Your task to perform on an android device: Open calendar and show me the second week of next month Image 0: 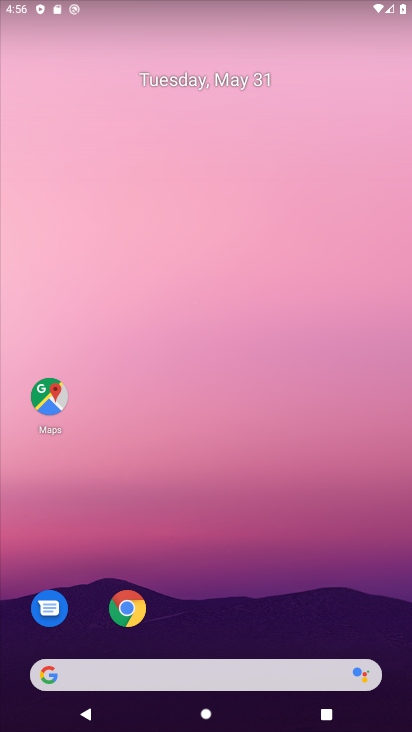
Step 0: drag from (272, 587) to (232, 24)
Your task to perform on an android device: Open calendar and show me the second week of next month Image 1: 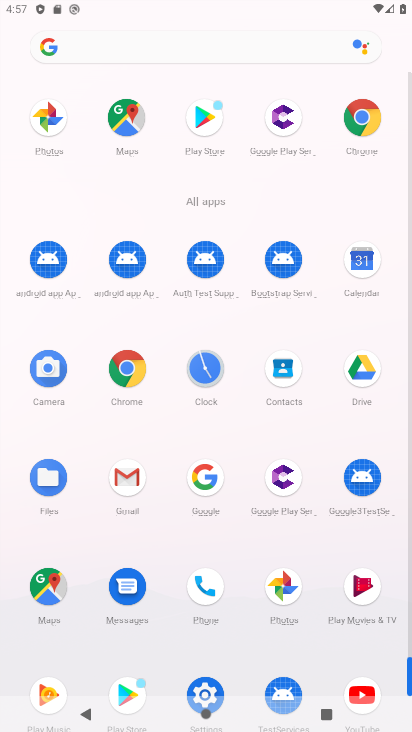
Step 1: click (365, 261)
Your task to perform on an android device: Open calendar and show me the second week of next month Image 2: 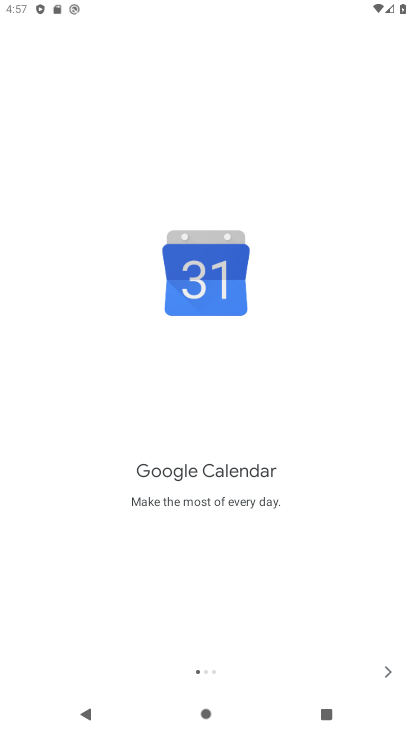
Step 2: click (385, 669)
Your task to perform on an android device: Open calendar and show me the second week of next month Image 3: 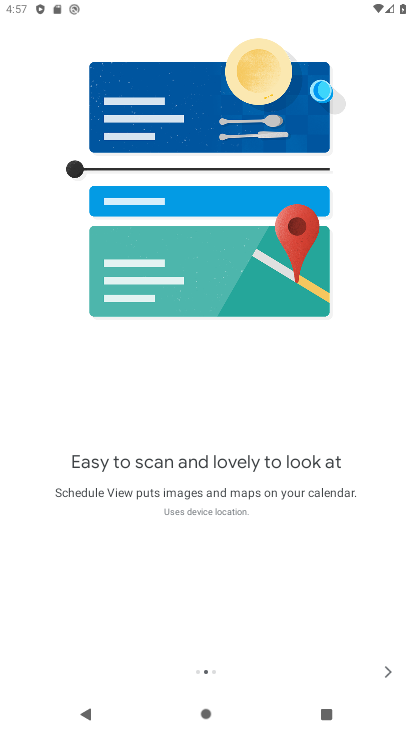
Step 3: click (385, 669)
Your task to perform on an android device: Open calendar and show me the second week of next month Image 4: 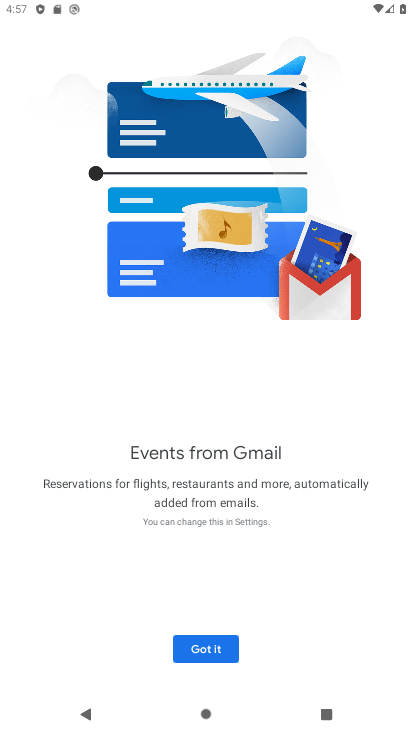
Step 4: click (204, 649)
Your task to perform on an android device: Open calendar and show me the second week of next month Image 5: 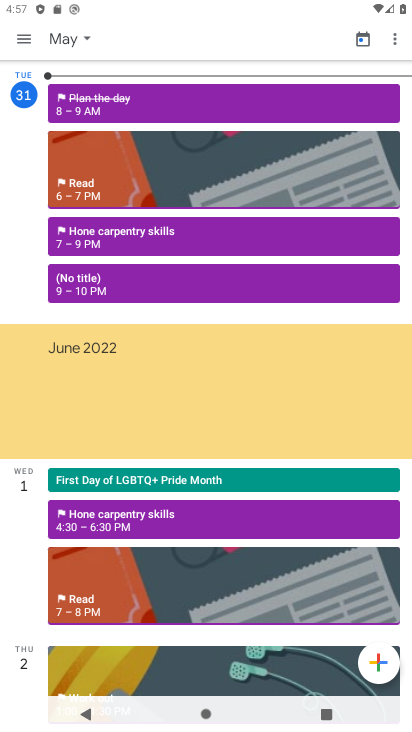
Step 5: click (87, 36)
Your task to perform on an android device: Open calendar and show me the second week of next month Image 6: 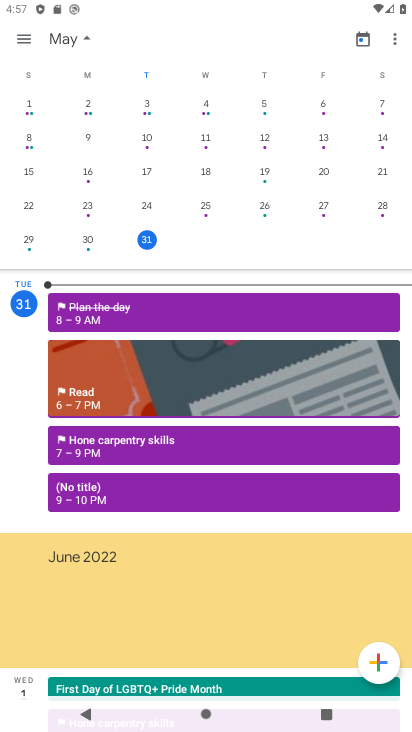
Step 6: drag from (357, 149) to (0, 180)
Your task to perform on an android device: Open calendar and show me the second week of next month Image 7: 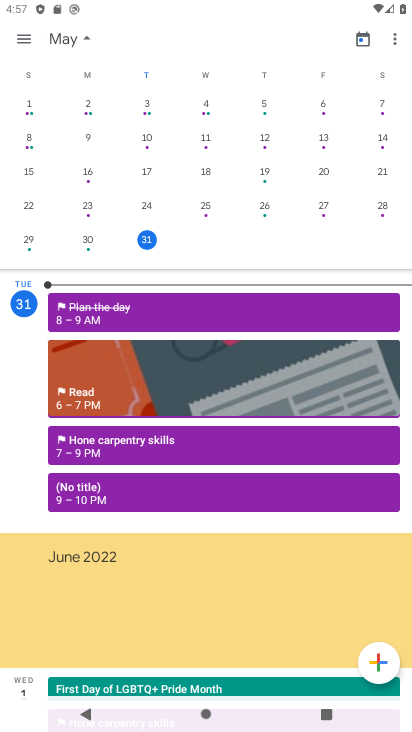
Step 7: drag from (348, 157) to (5, 175)
Your task to perform on an android device: Open calendar and show me the second week of next month Image 8: 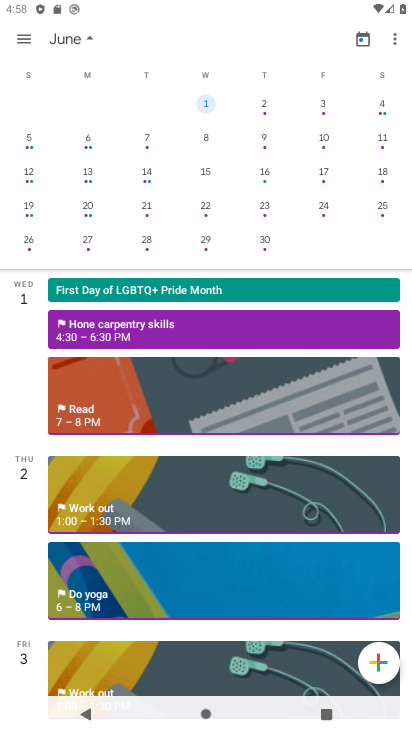
Step 8: click (87, 174)
Your task to perform on an android device: Open calendar and show me the second week of next month Image 9: 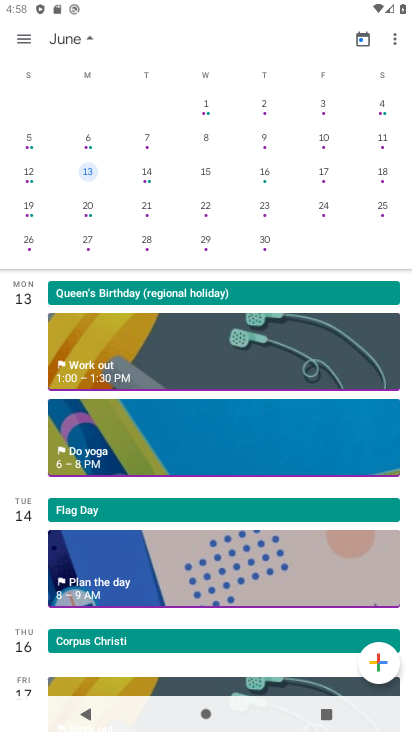
Step 9: click (20, 37)
Your task to perform on an android device: Open calendar and show me the second week of next month Image 10: 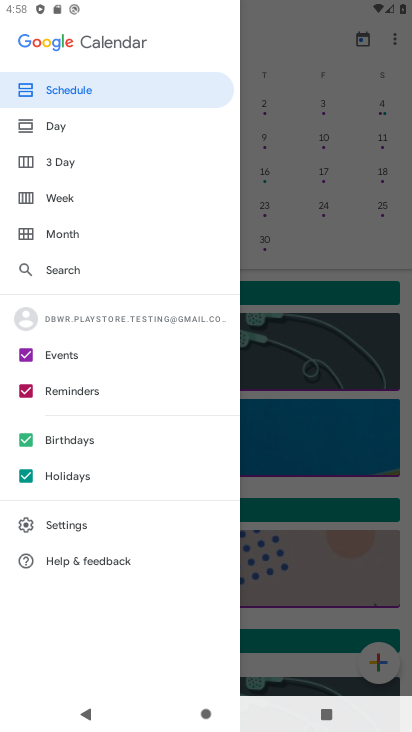
Step 10: click (62, 191)
Your task to perform on an android device: Open calendar and show me the second week of next month Image 11: 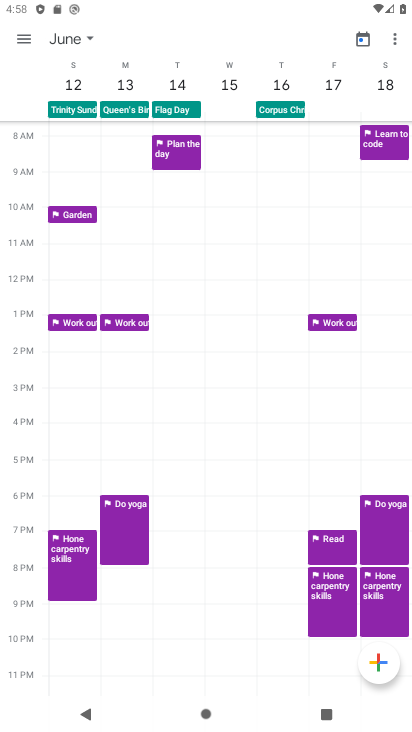
Step 11: task complete